Your task to perform on an android device: Go to ESPN.com Image 0: 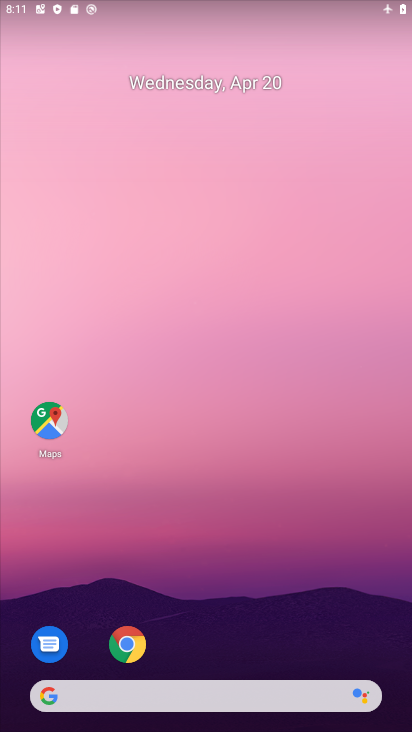
Step 0: drag from (320, 622) to (230, 53)
Your task to perform on an android device: Go to ESPN.com Image 1: 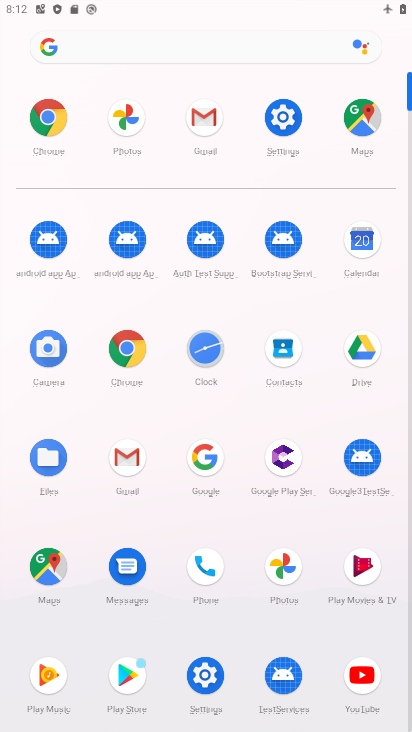
Step 1: click (126, 349)
Your task to perform on an android device: Go to ESPN.com Image 2: 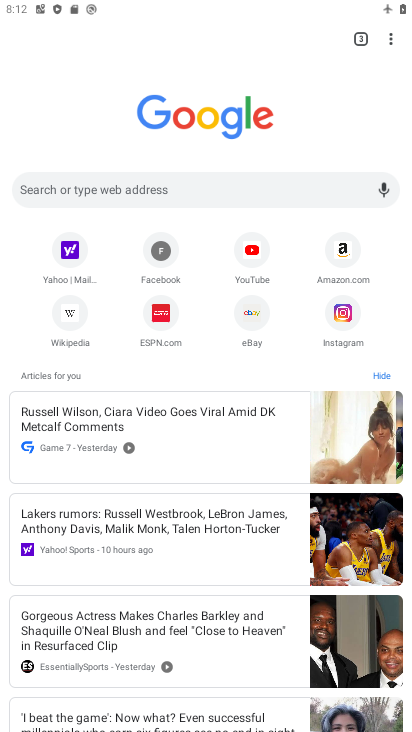
Step 2: click (149, 327)
Your task to perform on an android device: Go to ESPN.com Image 3: 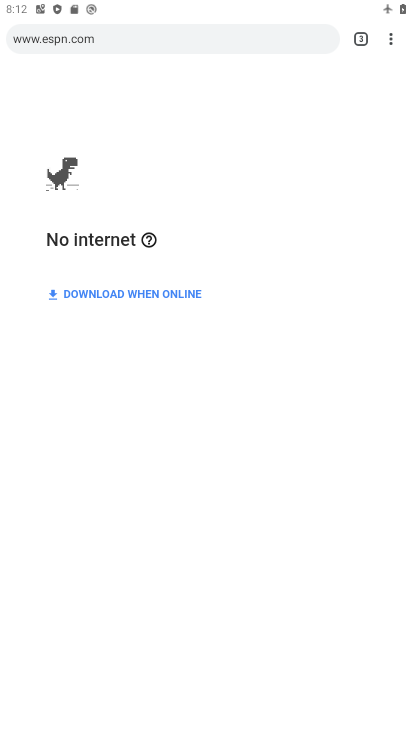
Step 3: task complete